Your task to perform on an android device: turn off sleep mode Image 0: 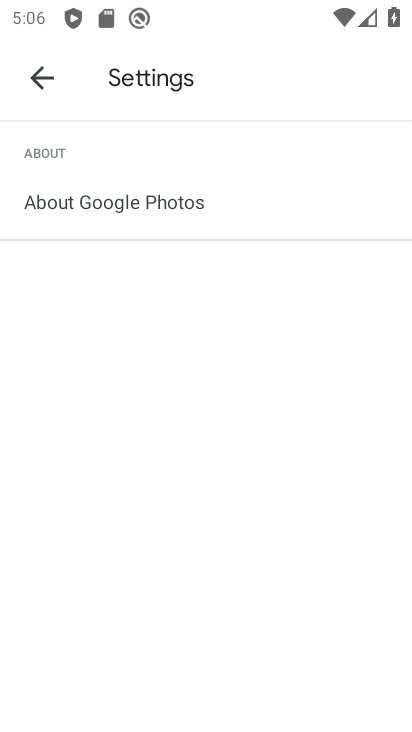
Step 0: press home button
Your task to perform on an android device: turn off sleep mode Image 1: 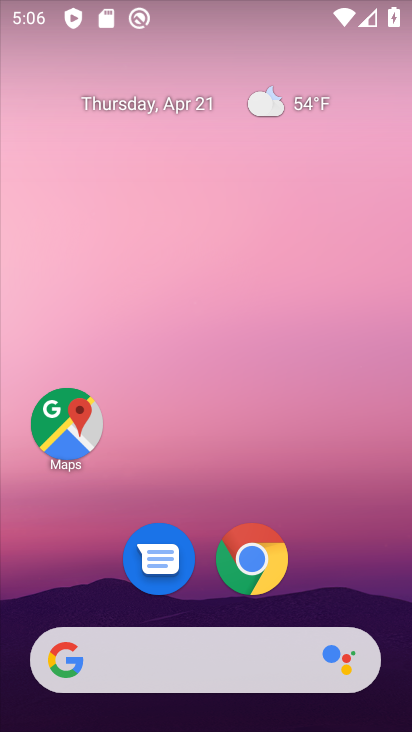
Step 1: drag from (347, 532) to (208, 175)
Your task to perform on an android device: turn off sleep mode Image 2: 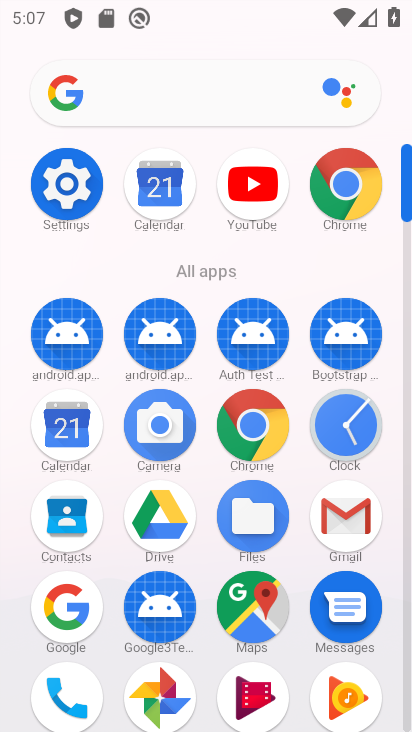
Step 2: click (89, 182)
Your task to perform on an android device: turn off sleep mode Image 3: 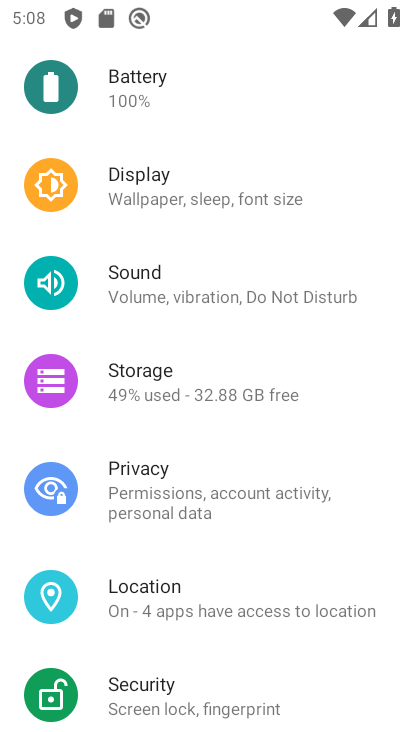
Step 3: drag from (188, 573) to (249, 211)
Your task to perform on an android device: turn off sleep mode Image 4: 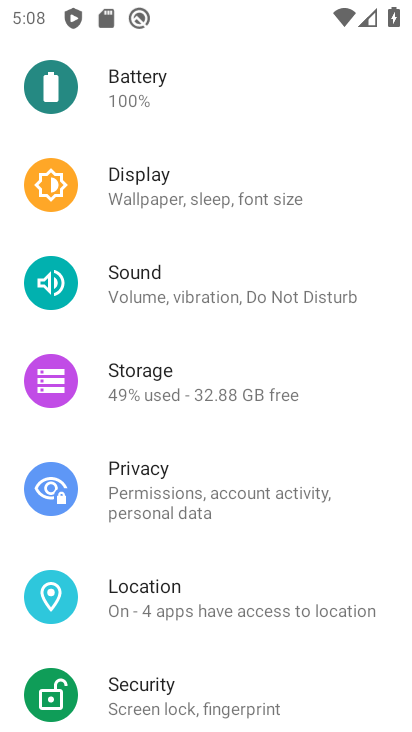
Step 4: drag from (197, 566) to (224, 137)
Your task to perform on an android device: turn off sleep mode Image 5: 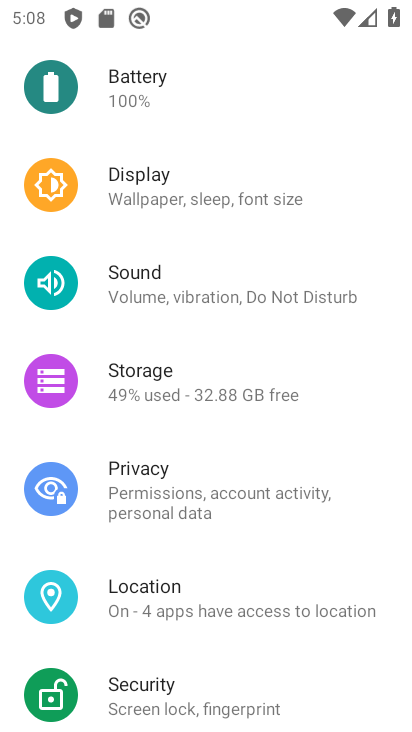
Step 5: click (207, 179)
Your task to perform on an android device: turn off sleep mode Image 6: 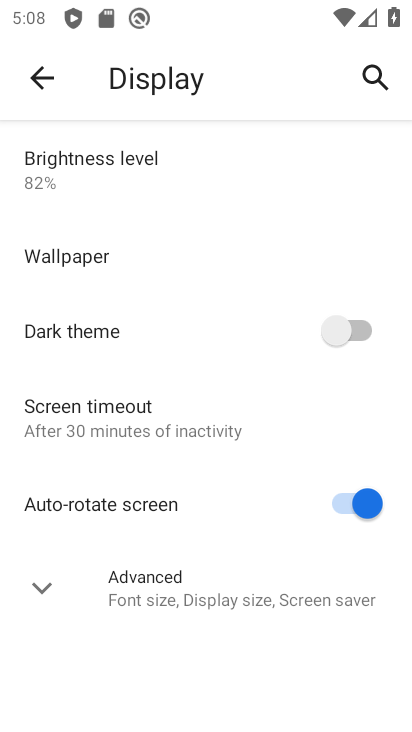
Step 6: click (135, 413)
Your task to perform on an android device: turn off sleep mode Image 7: 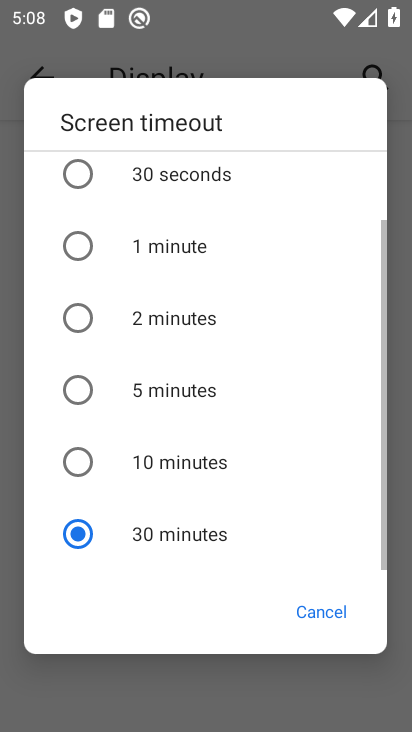
Step 7: task complete